Your task to perform on an android device: Go to wifi settings Image 0: 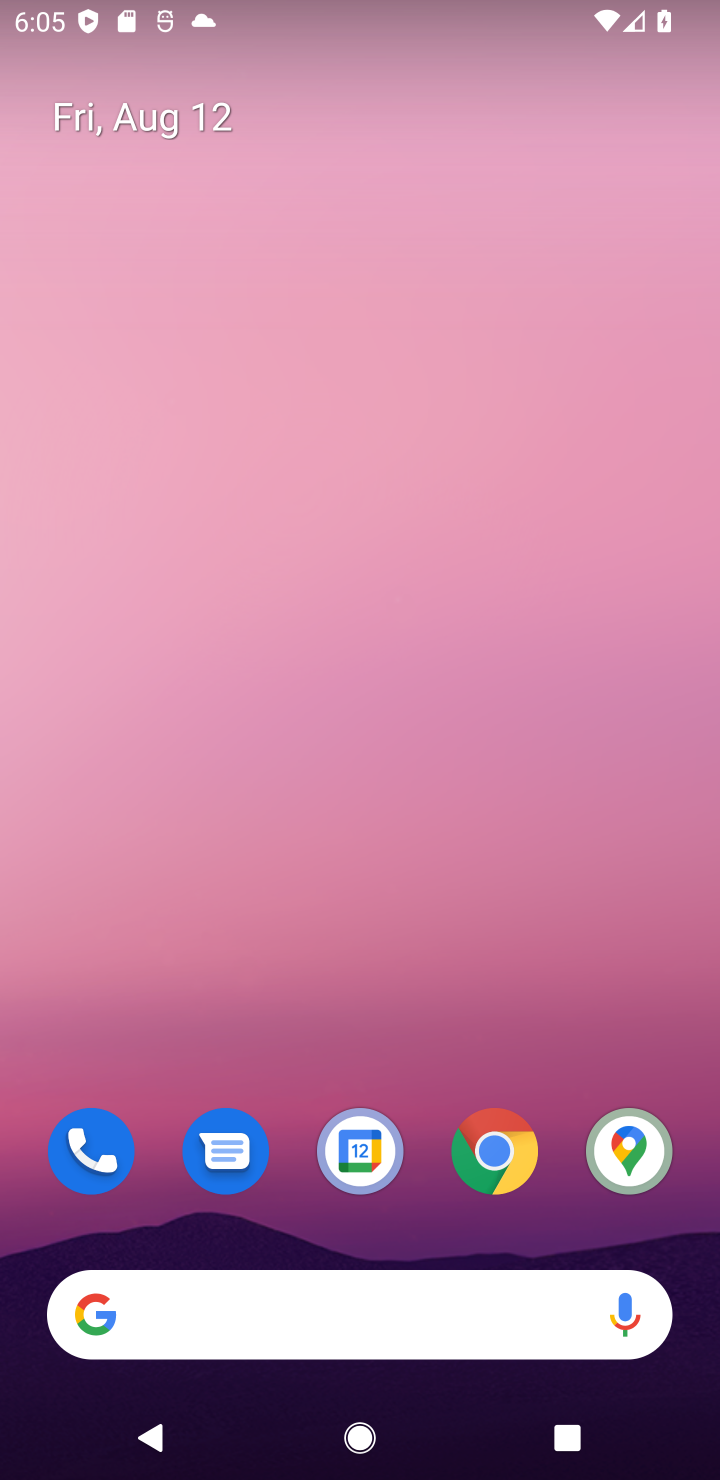
Step 0: drag from (301, 1180) to (402, 281)
Your task to perform on an android device: Go to wifi settings Image 1: 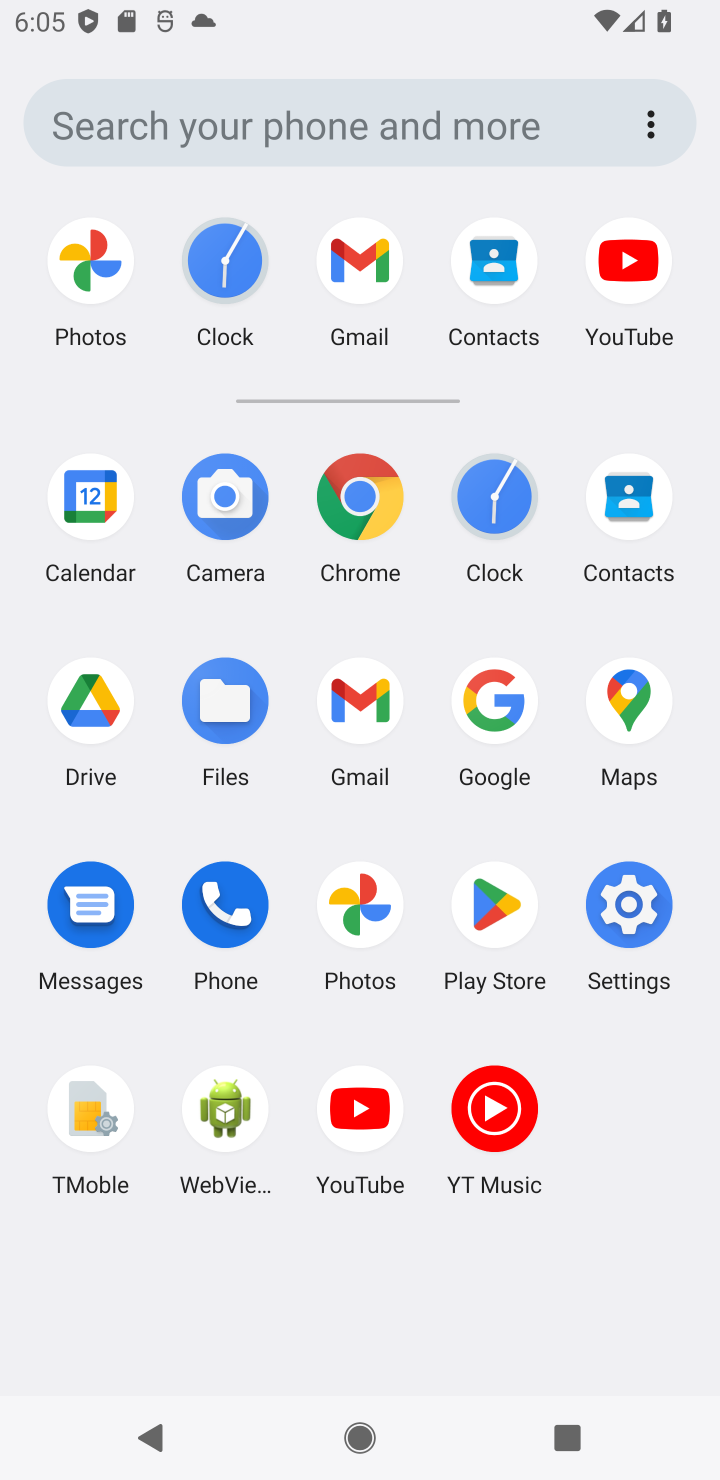
Step 1: click (632, 901)
Your task to perform on an android device: Go to wifi settings Image 2: 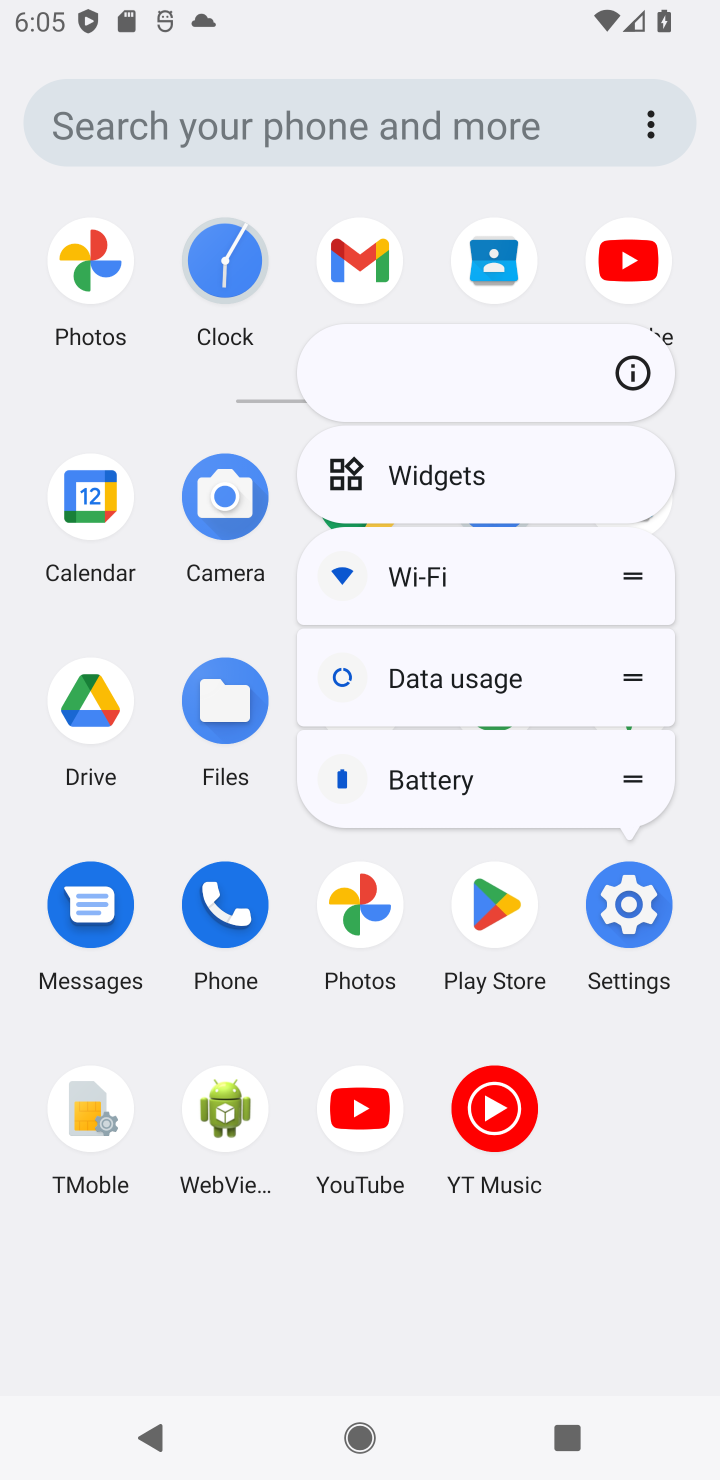
Step 2: click (630, 913)
Your task to perform on an android device: Go to wifi settings Image 3: 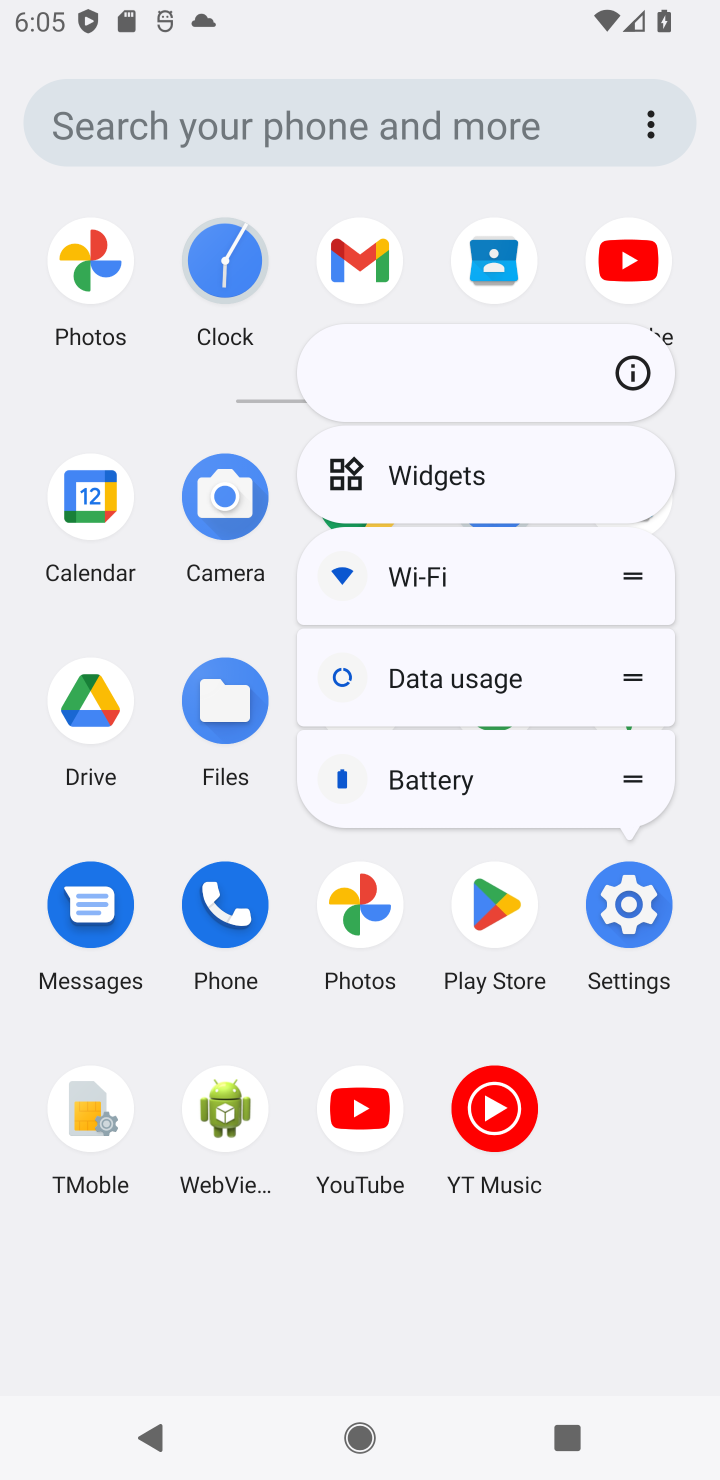
Step 3: click (658, 898)
Your task to perform on an android device: Go to wifi settings Image 4: 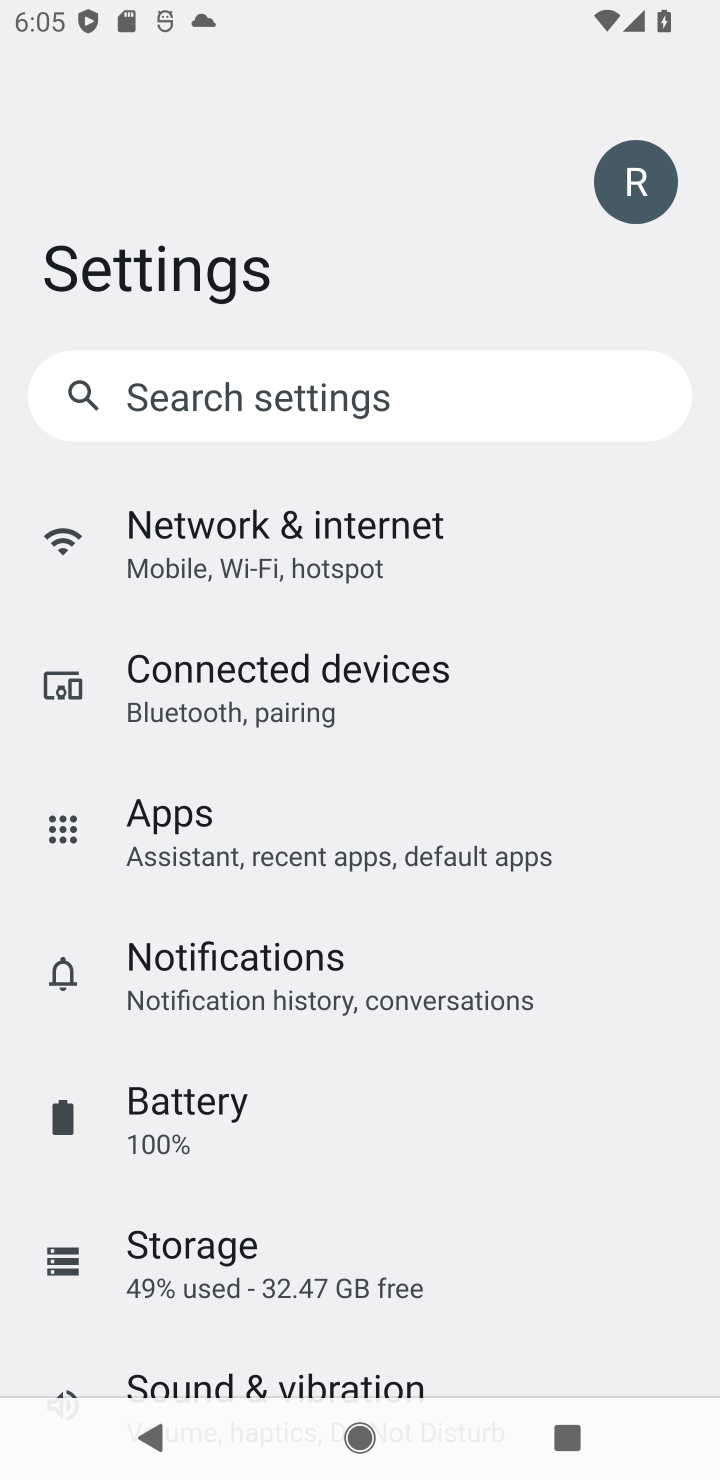
Step 4: click (191, 533)
Your task to perform on an android device: Go to wifi settings Image 5: 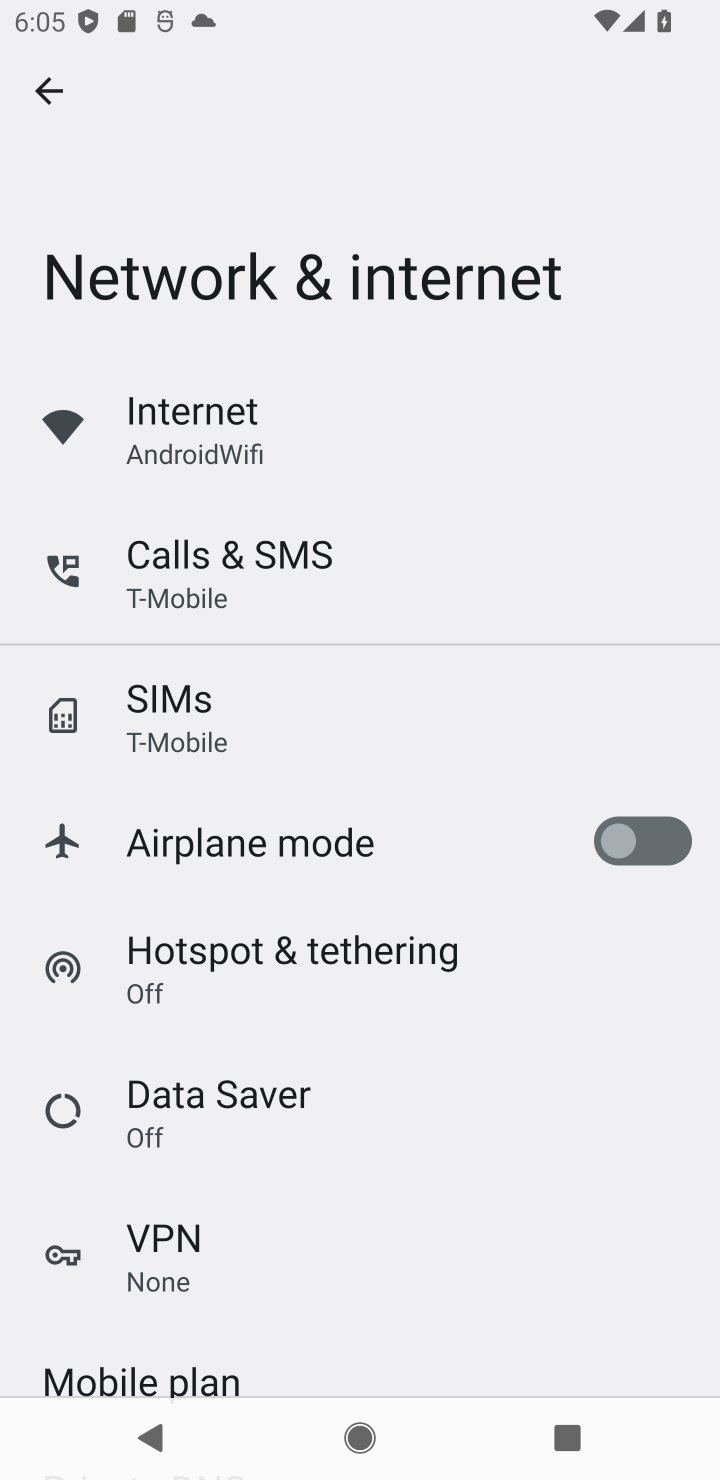
Step 5: click (290, 445)
Your task to perform on an android device: Go to wifi settings Image 6: 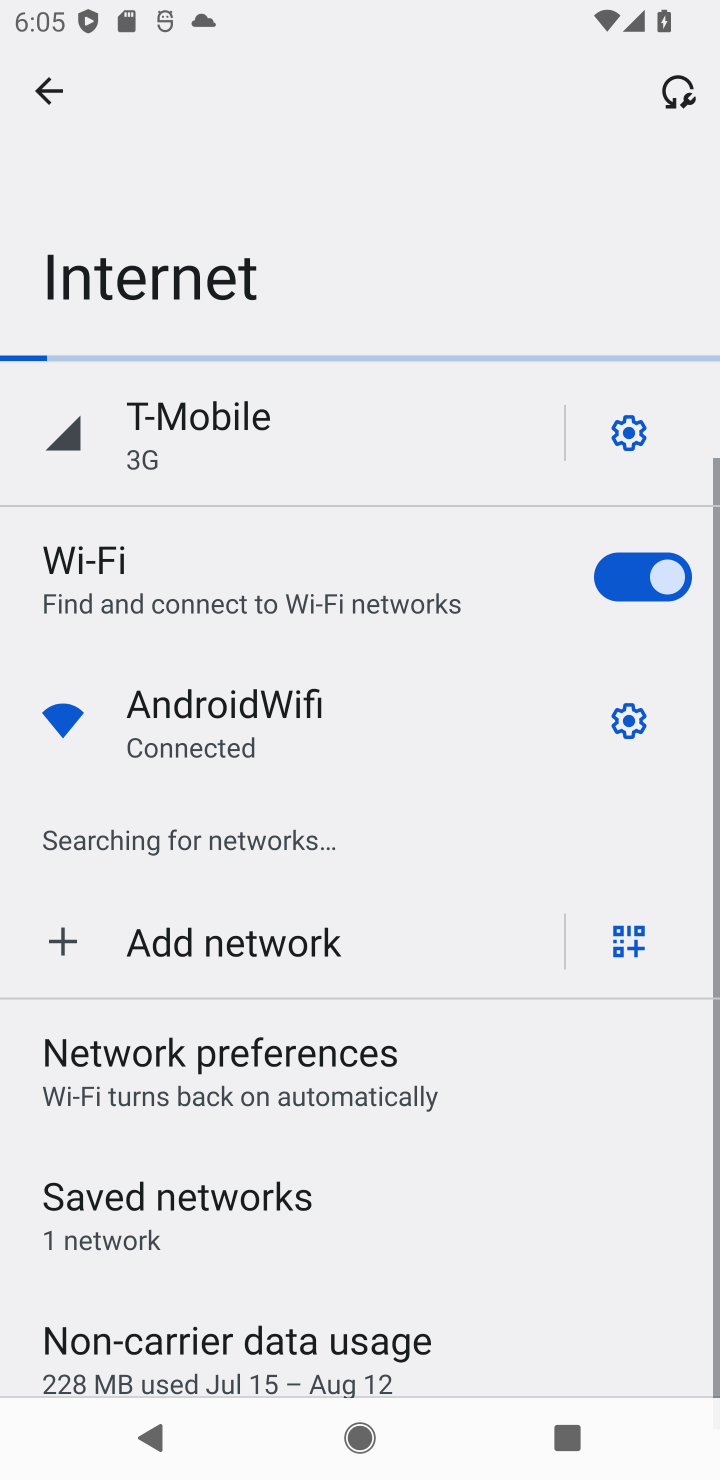
Step 6: click (623, 710)
Your task to perform on an android device: Go to wifi settings Image 7: 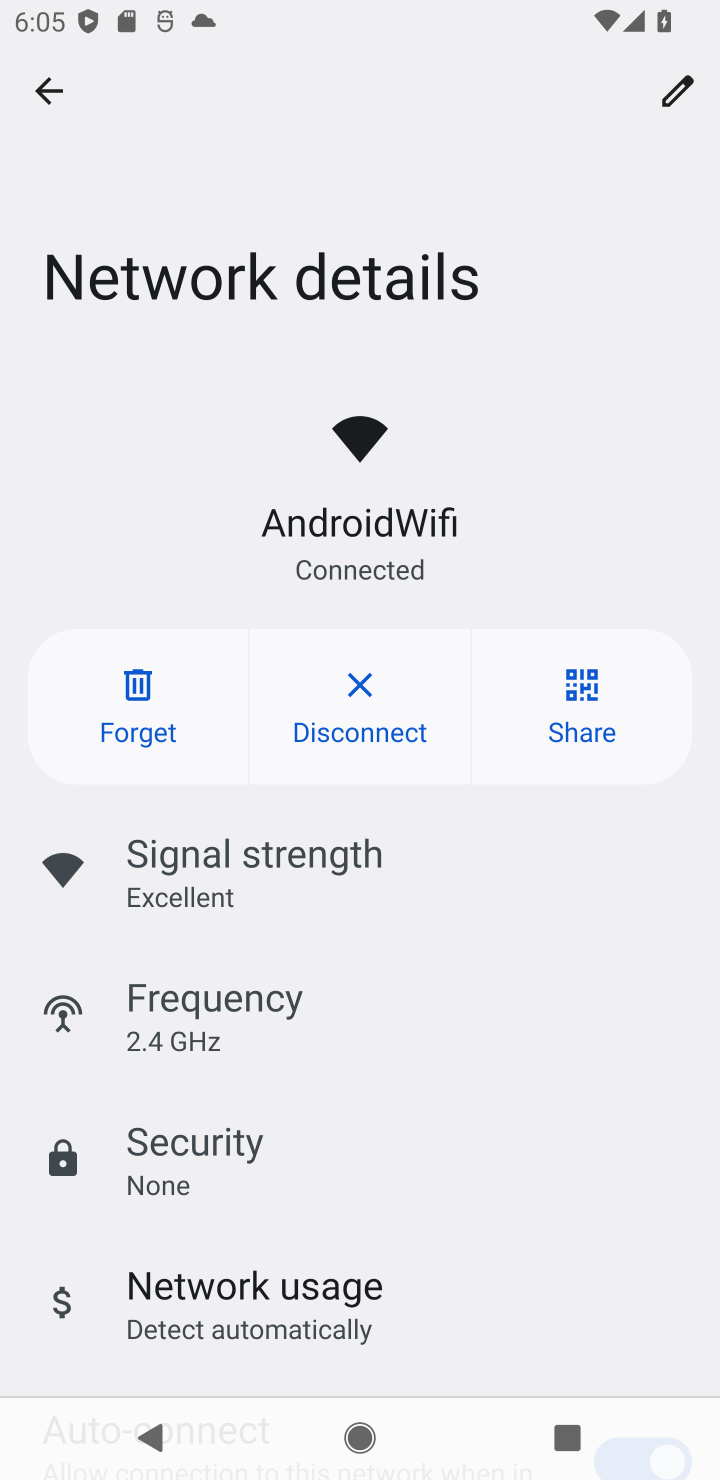
Step 7: task complete